Your task to perform on an android device: Find coffee shops on Maps Image 0: 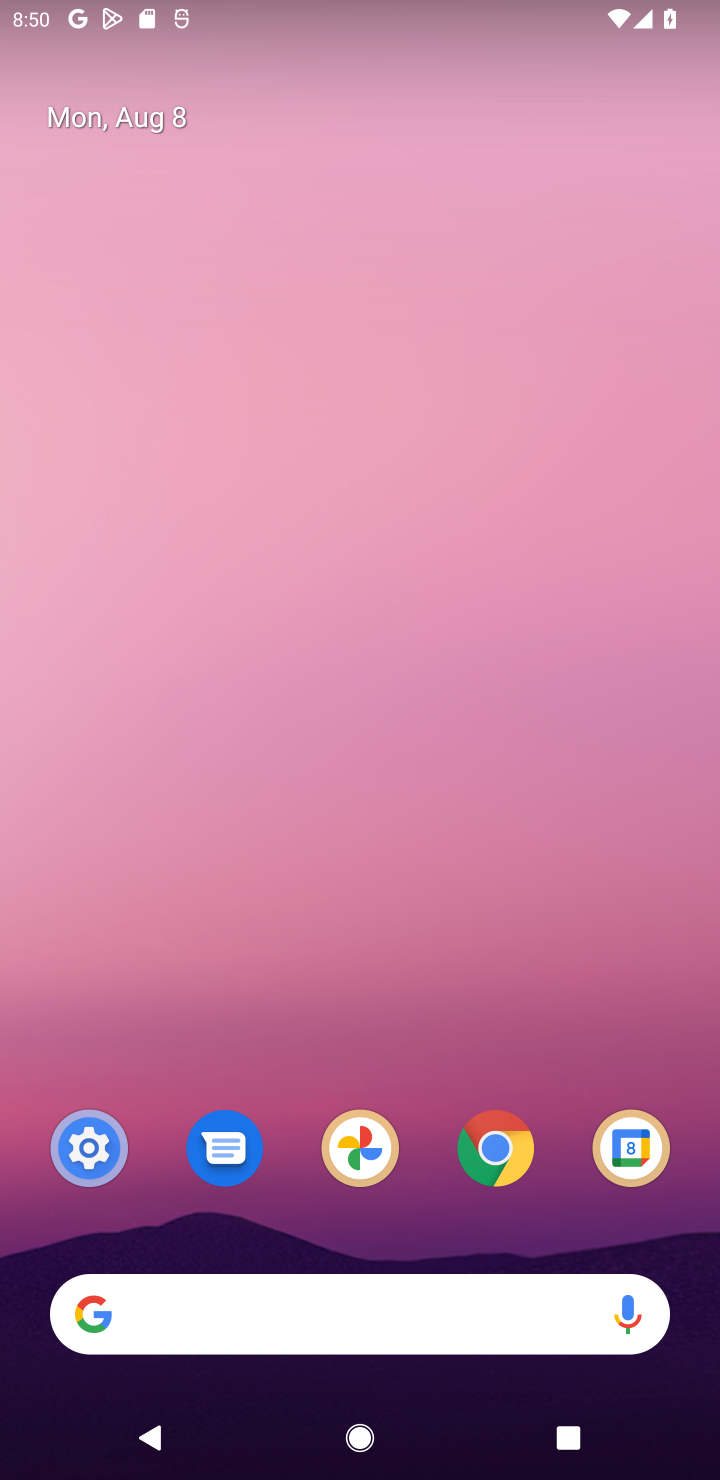
Step 0: drag from (387, 1219) to (392, 297)
Your task to perform on an android device: Find coffee shops on Maps Image 1: 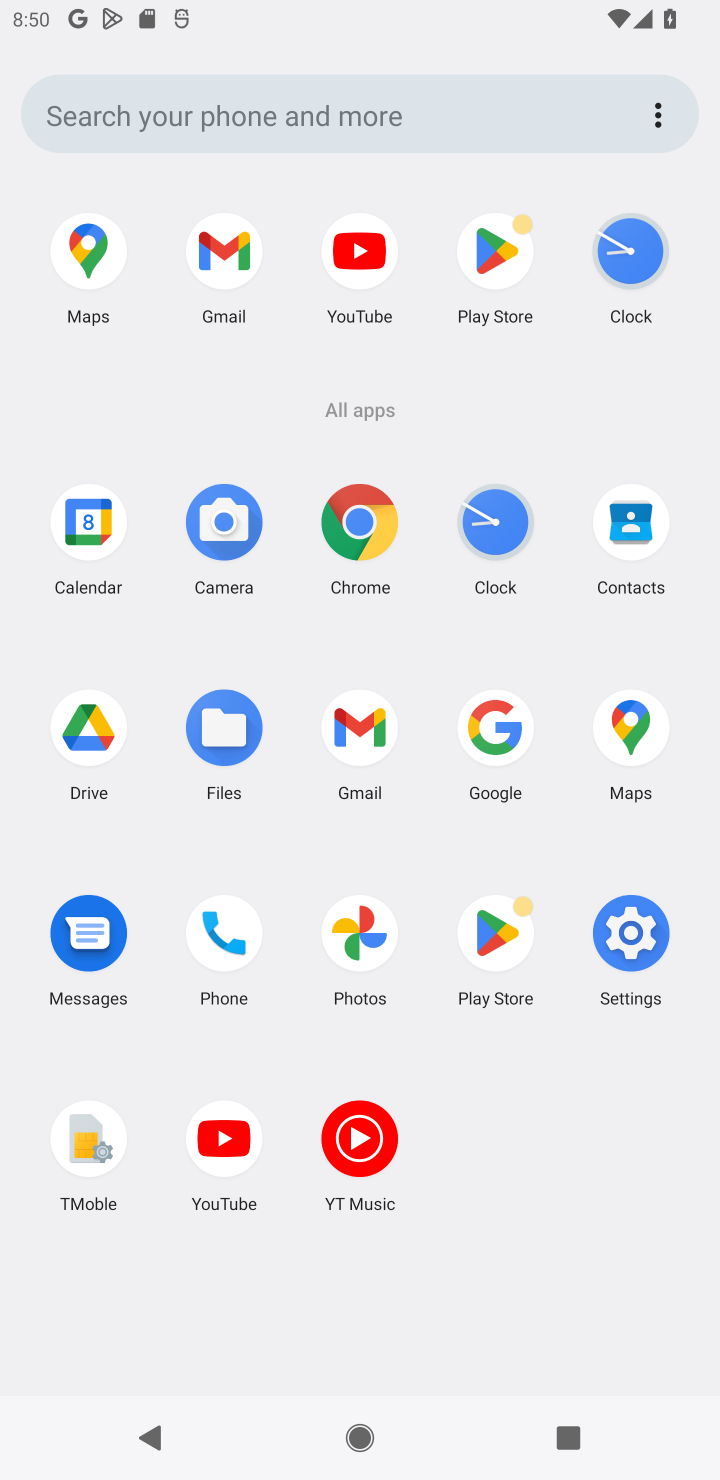
Step 1: click (632, 712)
Your task to perform on an android device: Find coffee shops on Maps Image 2: 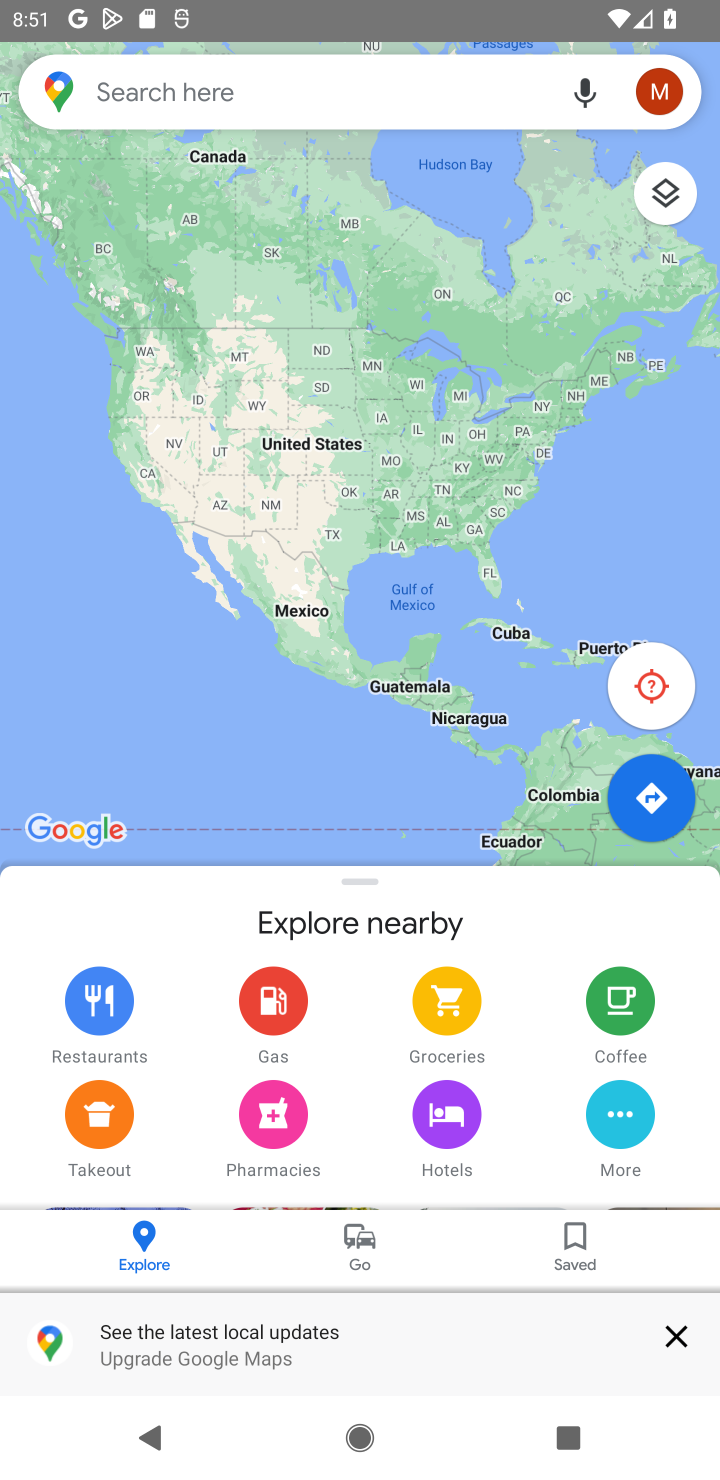
Step 2: click (309, 88)
Your task to perform on an android device: Find coffee shops on Maps Image 3: 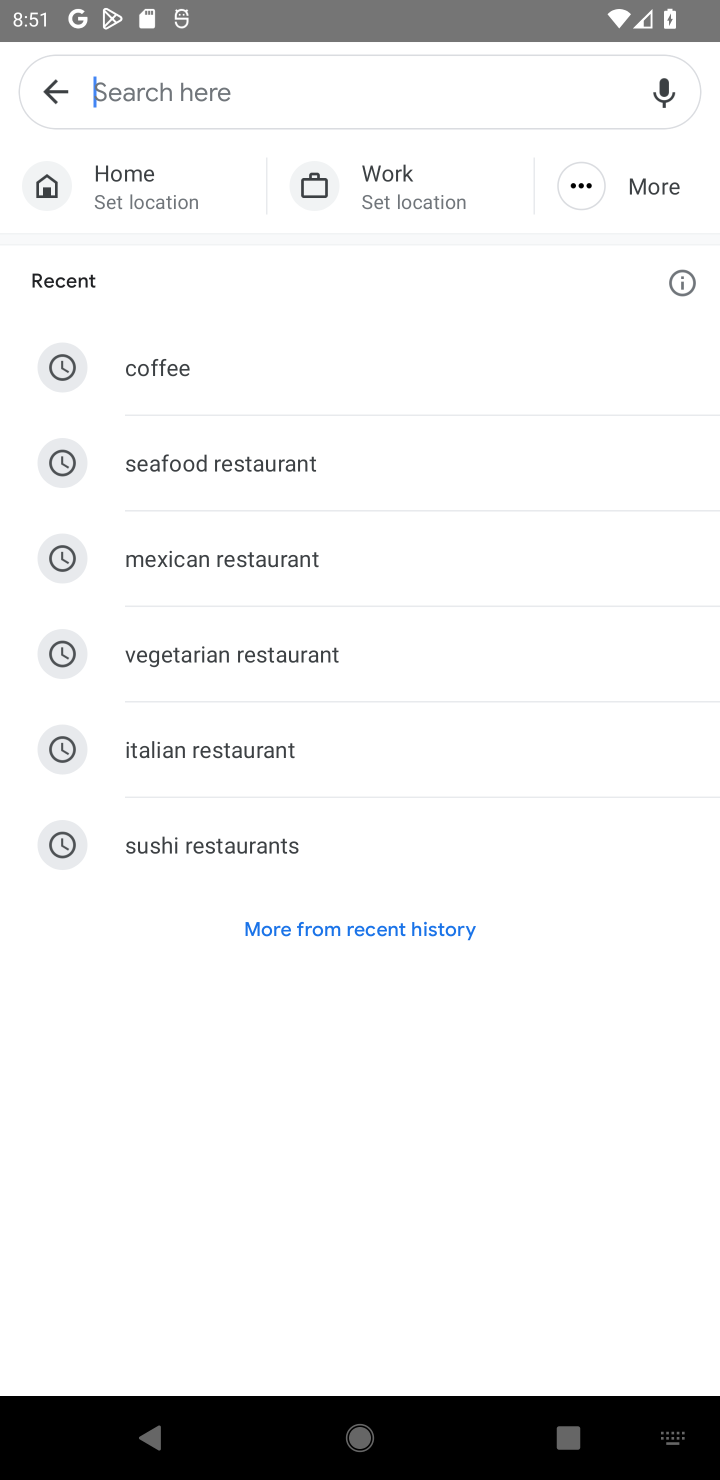
Step 3: click (238, 354)
Your task to perform on an android device: Find coffee shops on Maps Image 4: 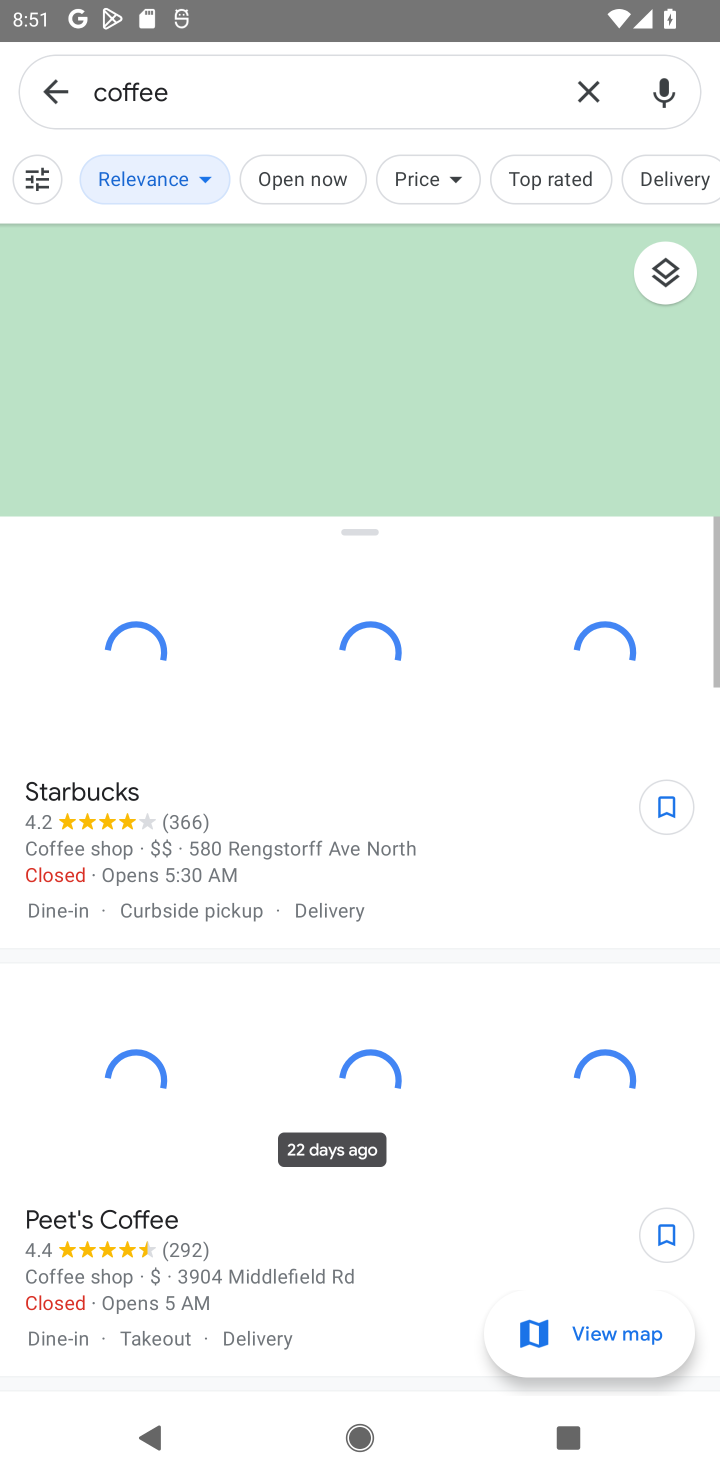
Step 4: task complete